Your task to perform on an android device: Go to settings Image 0: 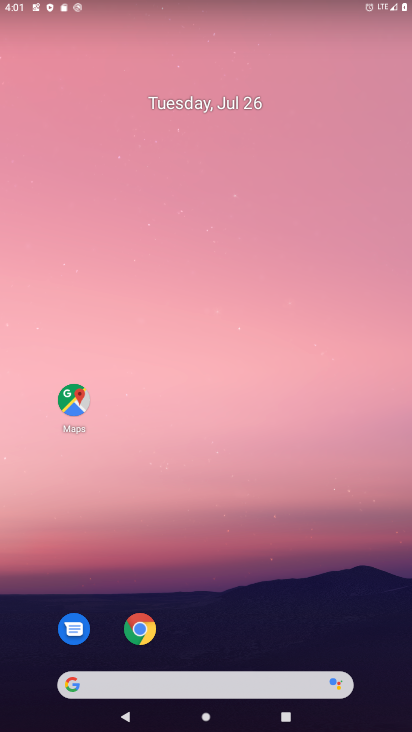
Step 0: drag from (238, 727) to (238, 125)
Your task to perform on an android device: Go to settings Image 1: 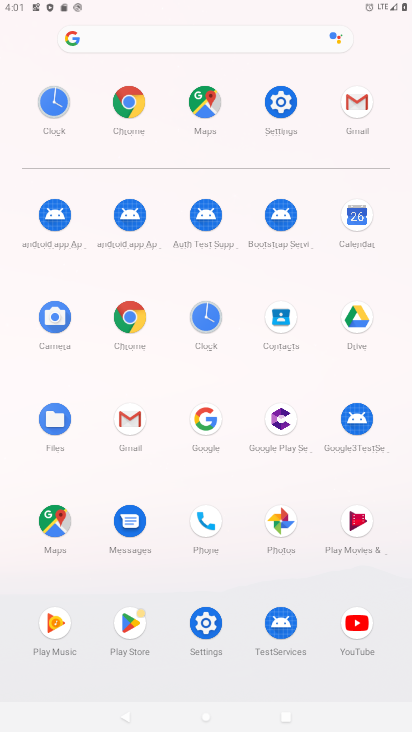
Step 1: click (284, 101)
Your task to perform on an android device: Go to settings Image 2: 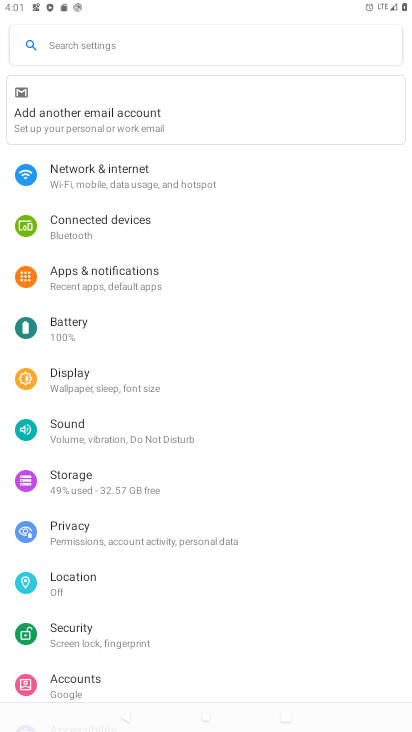
Step 2: task complete